Your task to perform on an android device: Open settings Image 0: 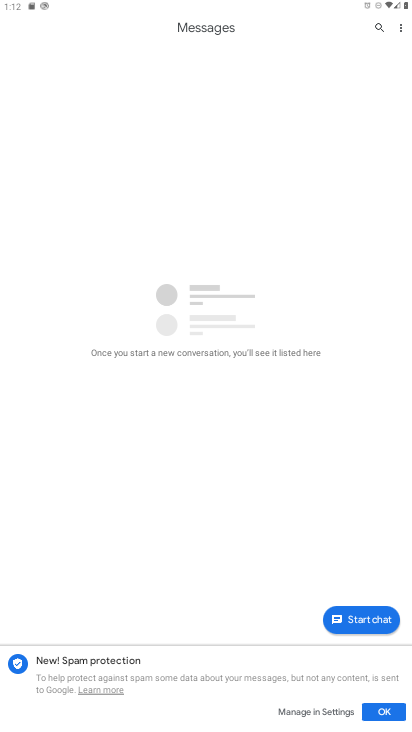
Step 0: press home button
Your task to perform on an android device: Open settings Image 1: 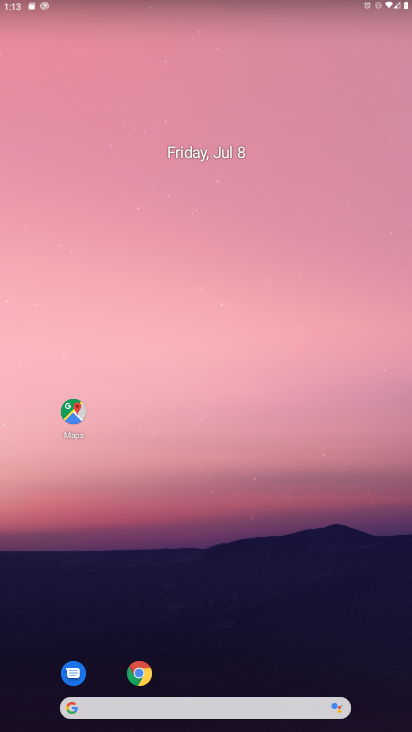
Step 1: drag from (399, 714) to (369, 308)
Your task to perform on an android device: Open settings Image 2: 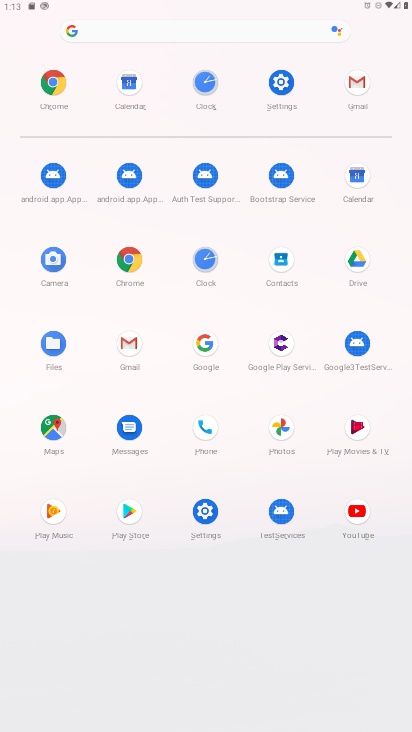
Step 2: click (276, 85)
Your task to perform on an android device: Open settings Image 3: 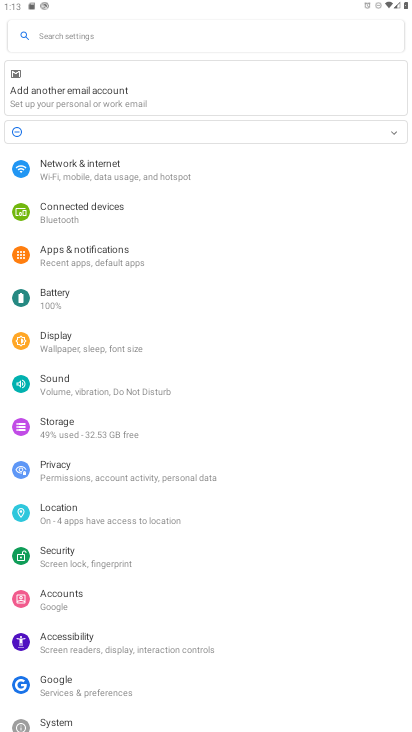
Step 3: task complete